Your task to perform on an android device: Open Android settings Image 0: 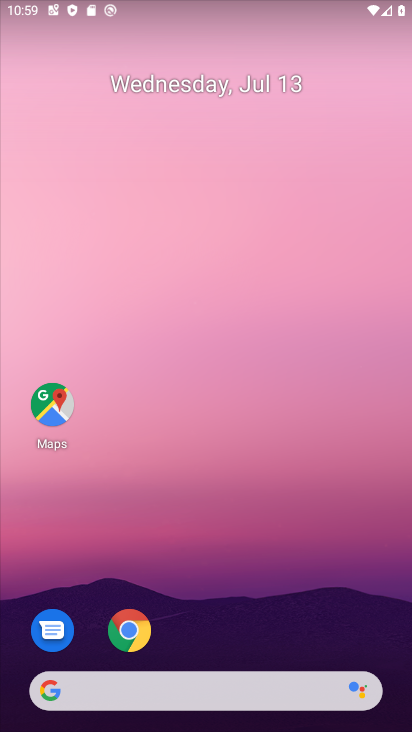
Step 0: drag from (280, 638) to (309, 8)
Your task to perform on an android device: Open Android settings Image 1: 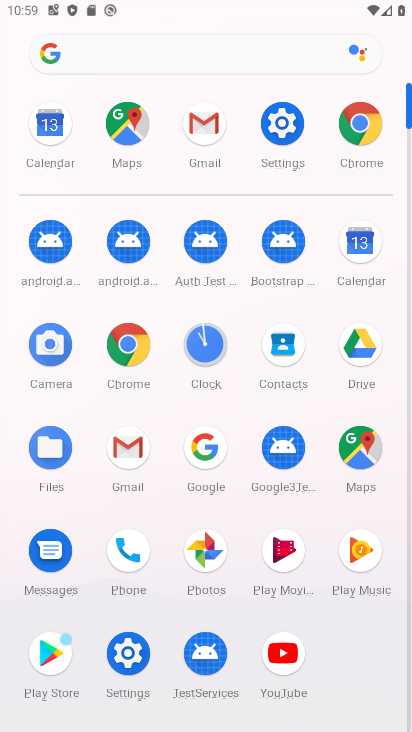
Step 1: click (273, 129)
Your task to perform on an android device: Open Android settings Image 2: 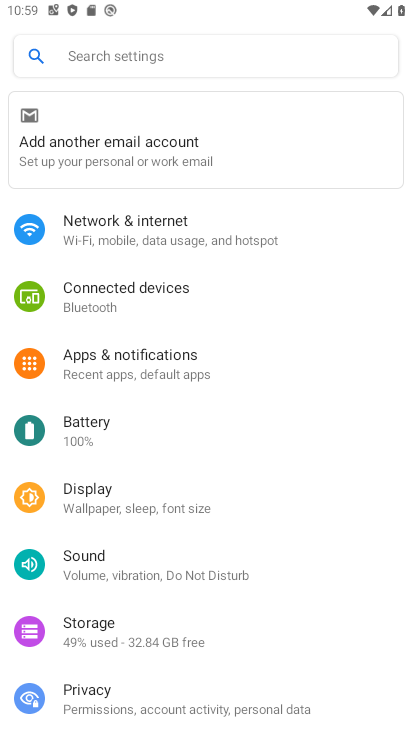
Step 2: task complete